Your task to perform on an android device: Open sound settings Image 0: 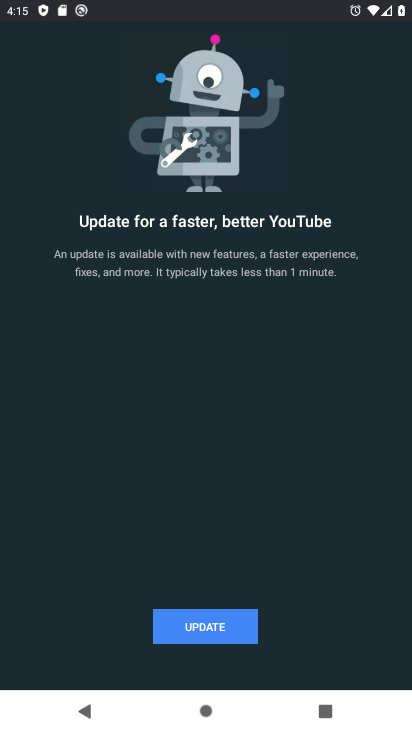
Step 0: press home button
Your task to perform on an android device: Open sound settings Image 1: 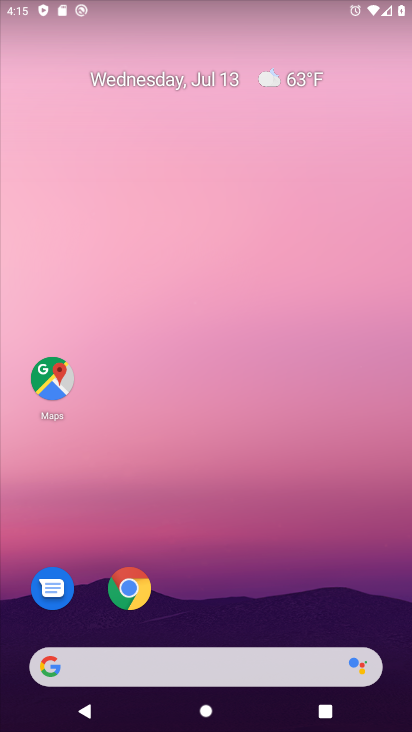
Step 1: drag from (222, 664) to (220, 113)
Your task to perform on an android device: Open sound settings Image 2: 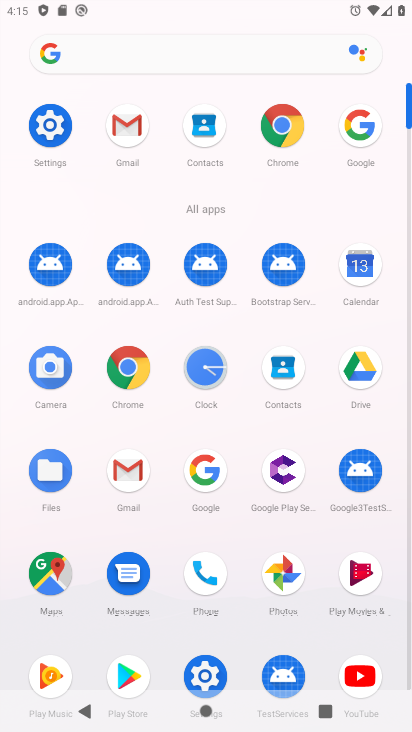
Step 2: click (53, 125)
Your task to perform on an android device: Open sound settings Image 3: 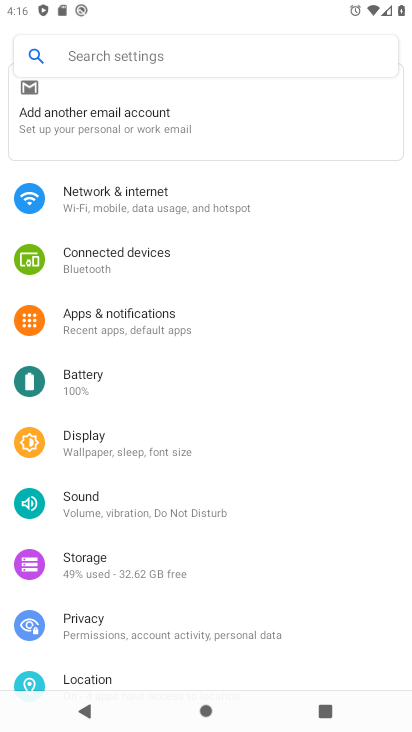
Step 3: click (101, 507)
Your task to perform on an android device: Open sound settings Image 4: 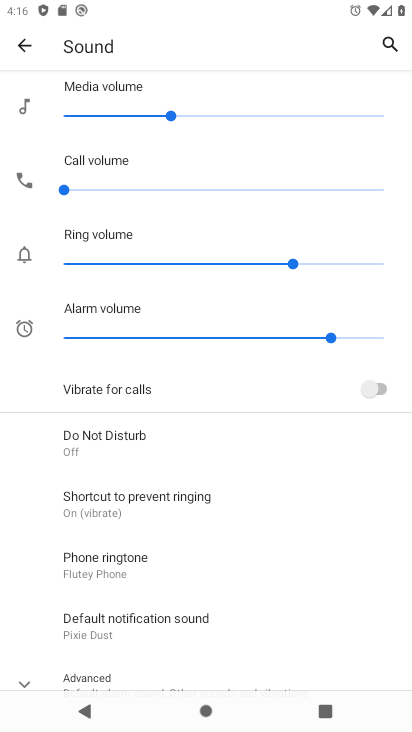
Step 4: task complete